Your task to perform on an android device: Is it going to rain tomorrow? Image 0: 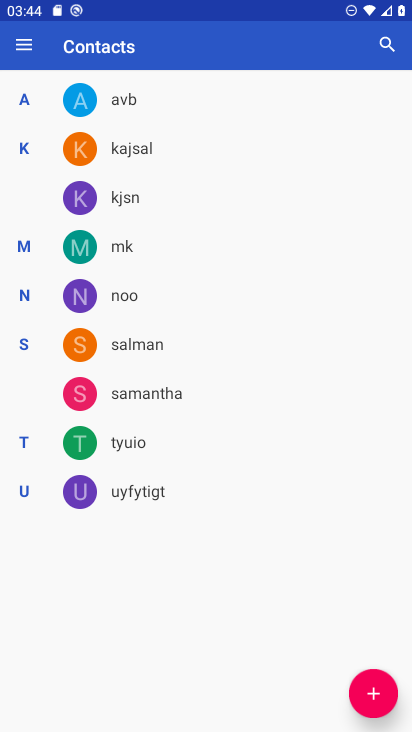
Step 0: press home button
Your task to perform on an android device: Is it going to rain tomorrow? Image 1: 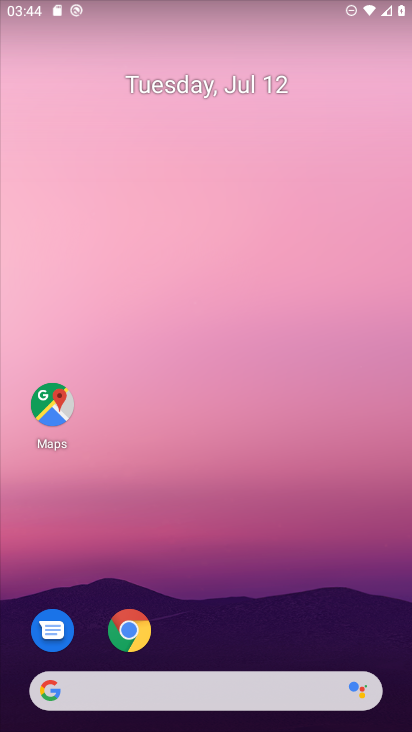
Step 1: drag from (17, 261) to (314, 295)
Your task to perform on an android device: Is it going to rain tomorrow? Image 2: 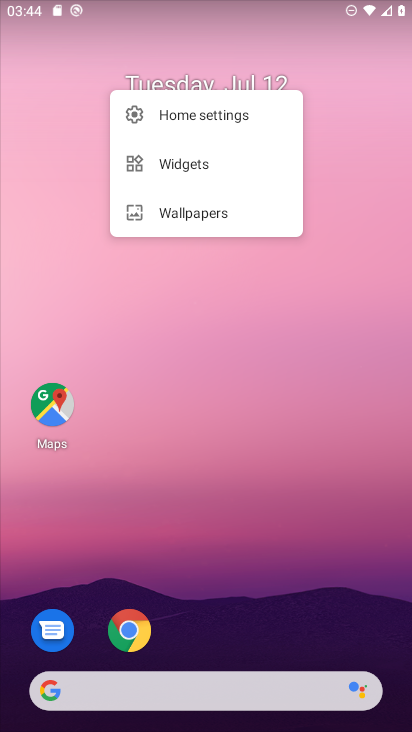
Step 2: drag from (8, 299) to (392, 364)
Your task to perform on an android device: Is it going to rain tomorrow? Image 3: 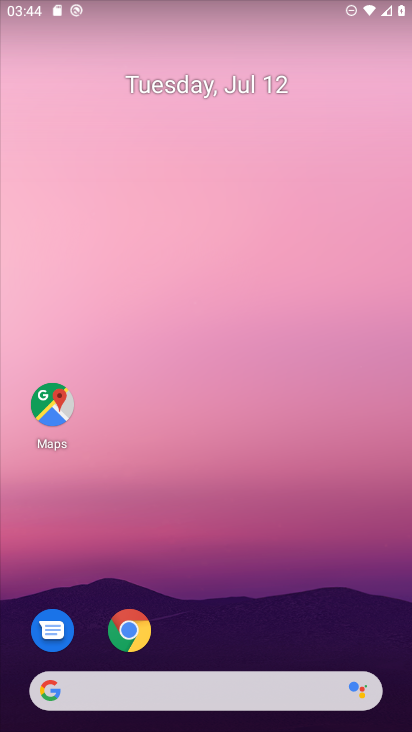
Step 3: drag from (6, 325) to (402, 335)
Your task to perform on an android device: Is it going to rain tomorrow? Image 4: 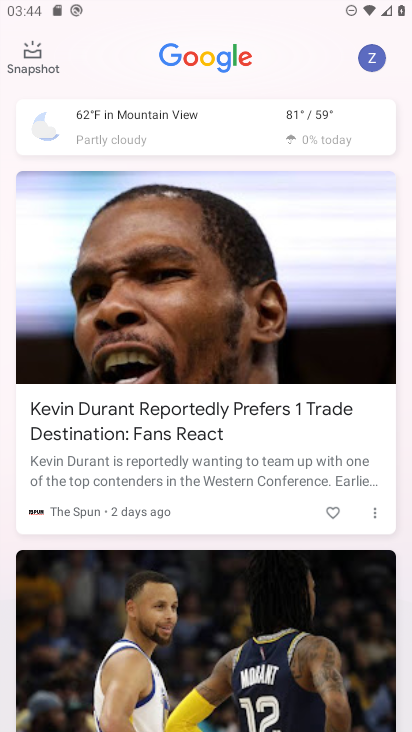
Step 4: click (307, 117)
Your task to perform on an android device: Is it going to rain tomorrow? Image 5: 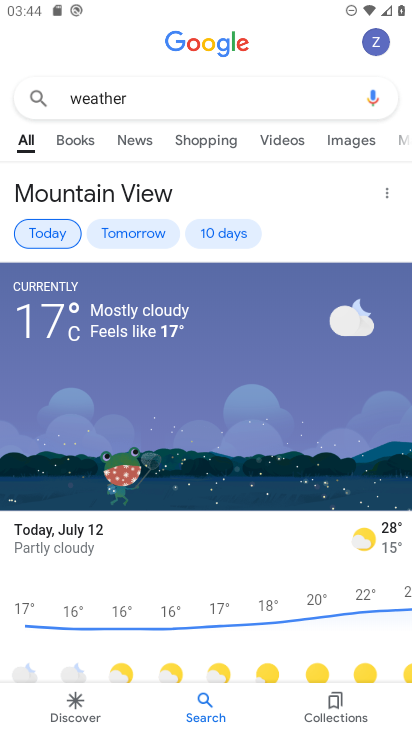
Step 5: click (139, 230)
Your task to perform on an android device: Is it going to rain tomorrow? Image 6: 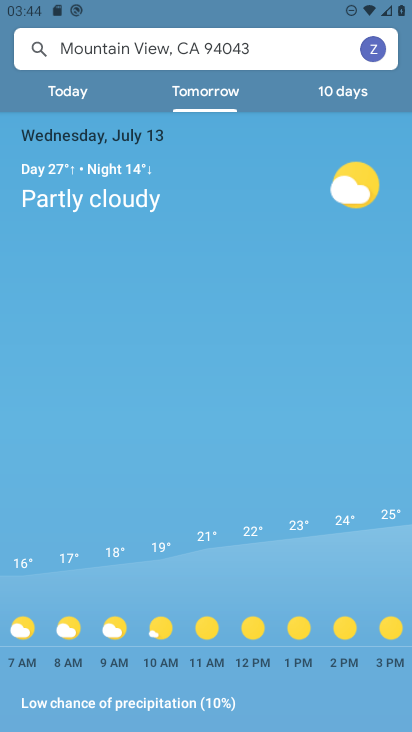
Step 6: task complete